Your task to perform on an android device: Toggle the flashlight Image 0: 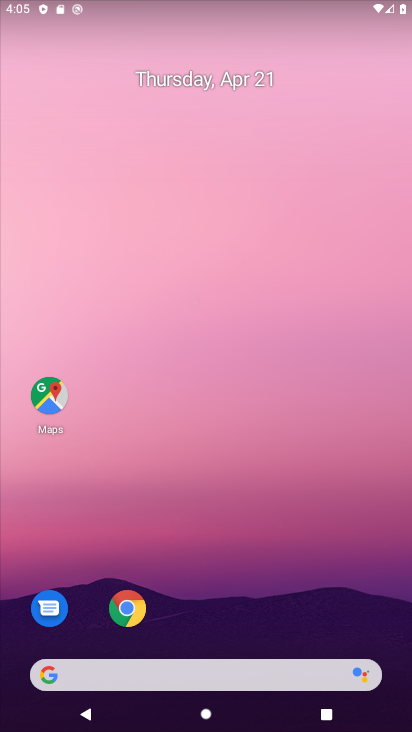
Step 0: drag from (255, 590) to (227, 158)
Your task to perform on an android device: Toggle the flashlight Image 1: 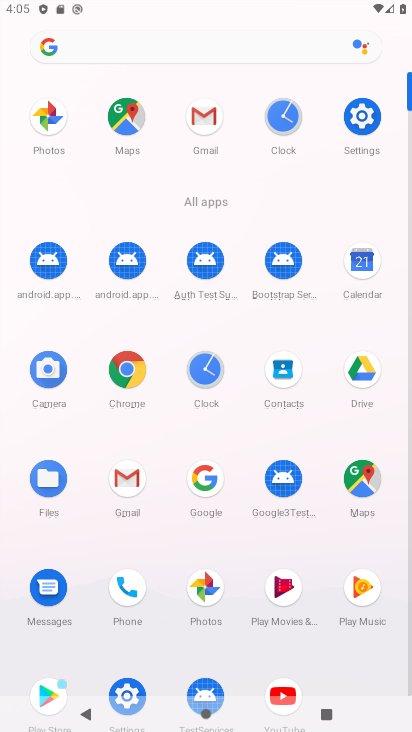
Step 1: task complete